Your task to perform on an android device: change your default location settings in chrome Image 0: 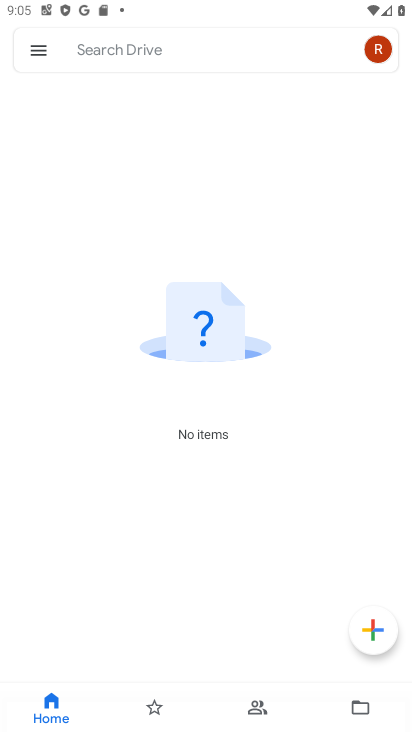
Step 0: press home button
Your task to perform on an android device: change your default location settings in chrome Image 1: 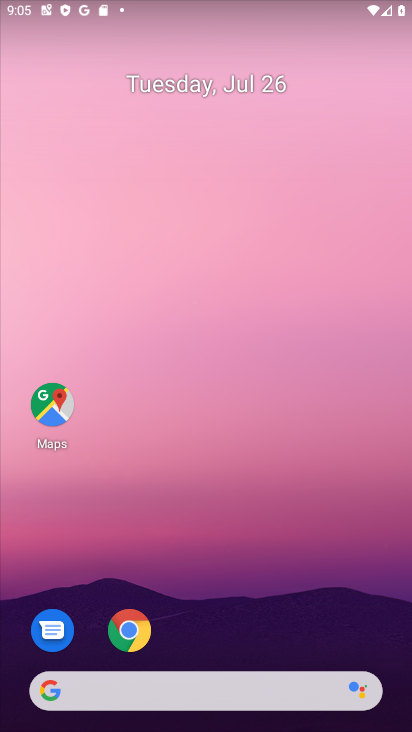
Step 1: click (132, 626)
Your task to perform on an android device: change your default location settings in chrome Image 2: 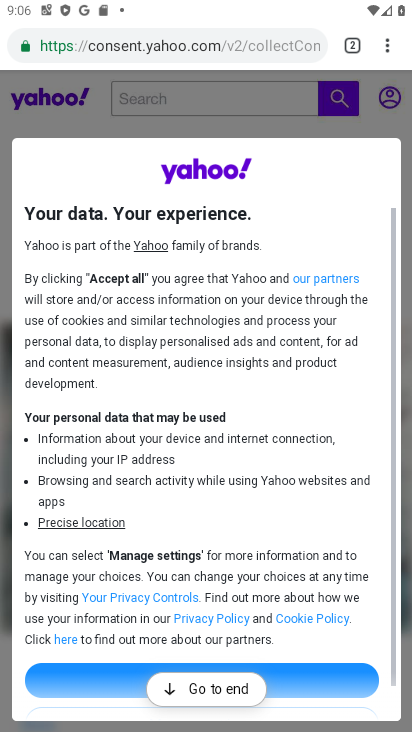
Step 2: click (389, 53)
Your task to perform on an android device: change your default location settings in chrome Image 3: 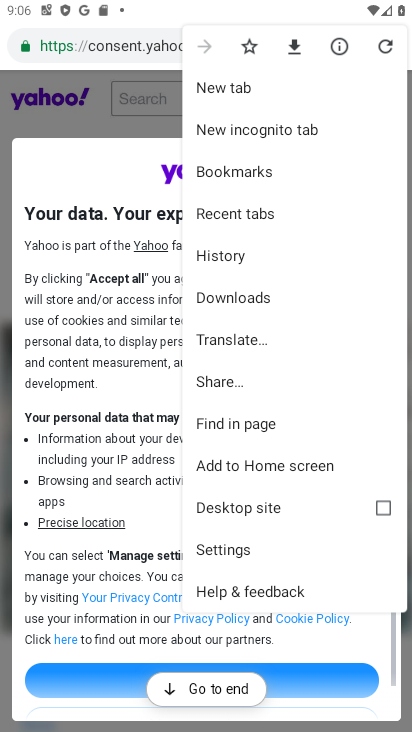
Step 3: click (262, 544)
Your task to perform on an android device: change your default location settings in chrome Image 4: 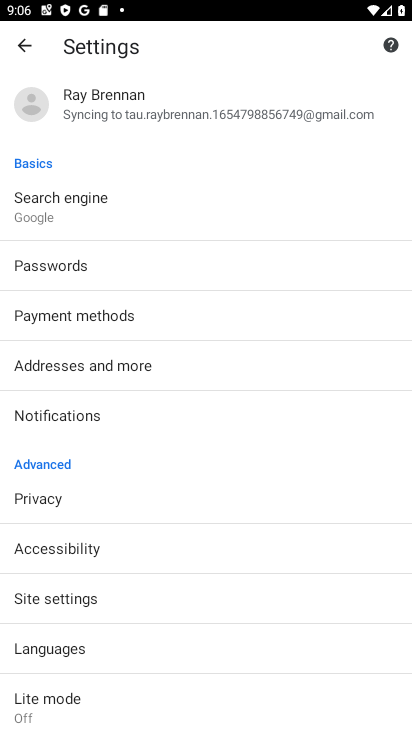
Step 4: click (182, 610)
Your task to perform on an android device: change your default location settings in chrome Image 5: 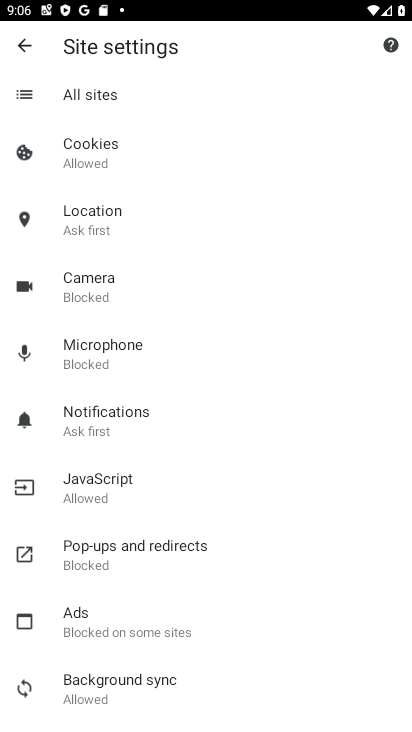
Step 5: click (150, 229)
Your task to perform on an android device: change your default location settings in chrome Image 6: 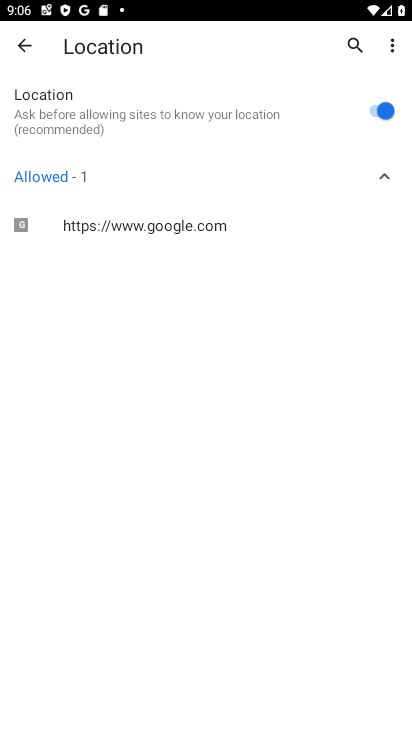
Step 6: click (394, 56)
Your task to perform on an android device: change your default location settings in chrome Image 7: 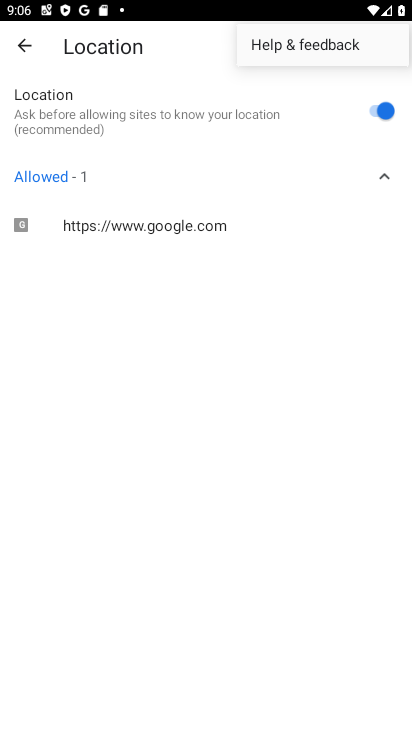
Step 7: task complete